Your task to perform on an android device: star an email in the gmail app Image 0: 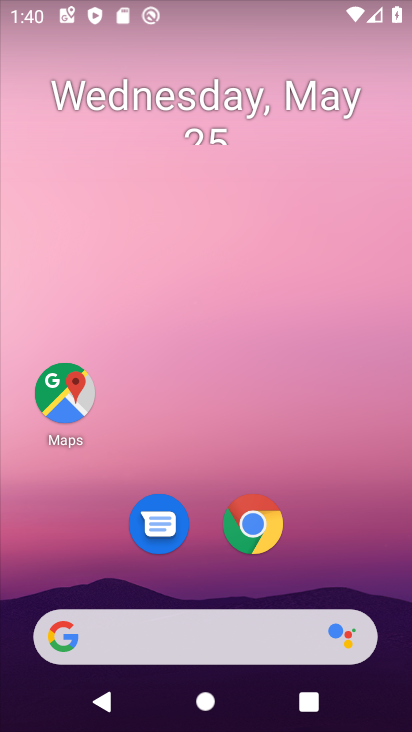
Step 0: drag from (219, 461) to (273, 0)
Your task to perform on an android device: star an email in the gmail app Image 1: 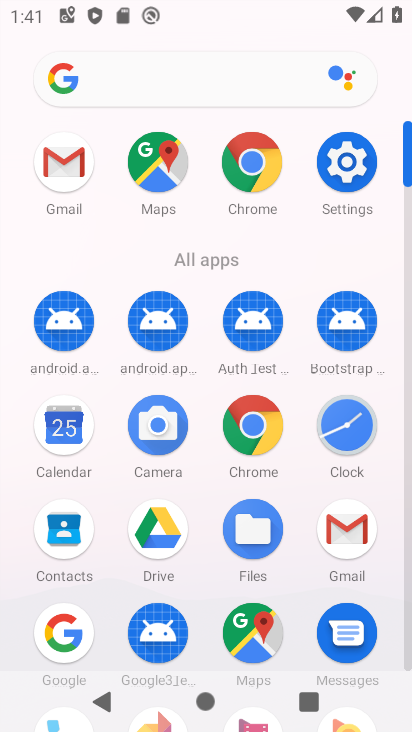
Step 1: click (65, 160)
Your task to perform on an android device: star an email in the gmail app Image 2: 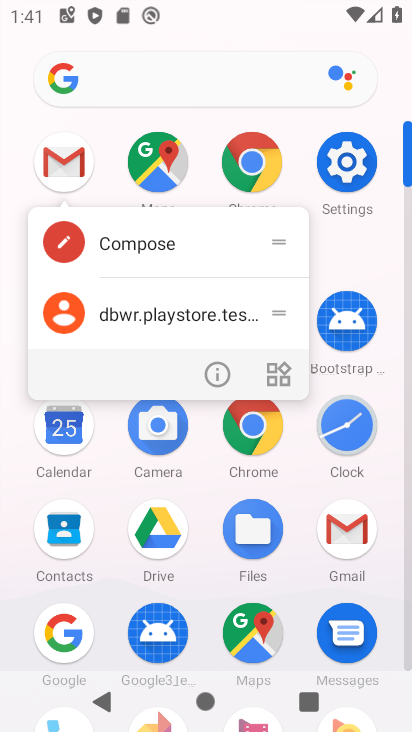
Step 2: click (65, 160)
Your task to perform on an android device: star an email in the gmail app Image 3: 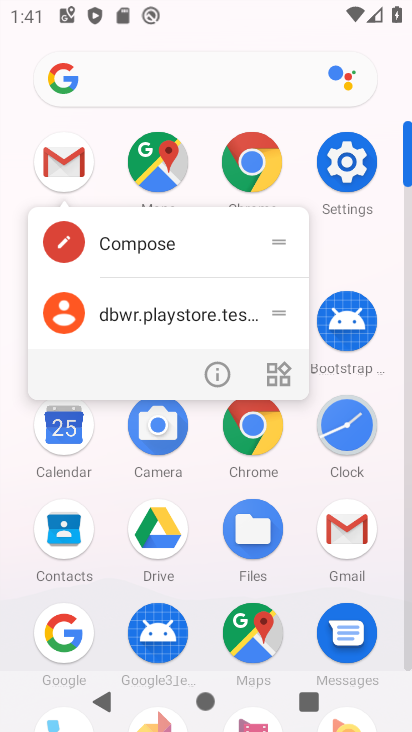
Step 3: click (71, 145)
Your task to perform on an android device: star an email in the gmail app Image 4: 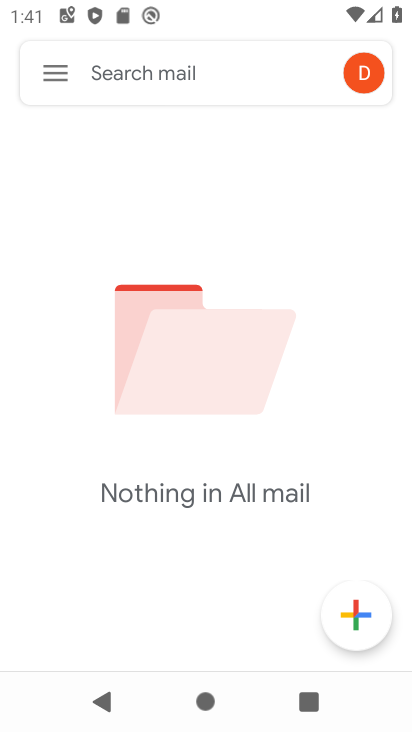
Step 4: task complete